Your task to perform on an android device: change the clock display to digital Image 0: 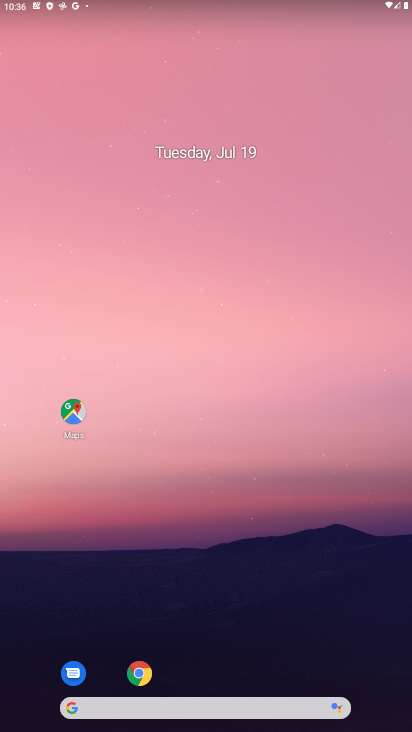
Step 0: drag from (237, 672) to (197, 88)
Your task to perform on an android device: change the clock display to digital Image 1: 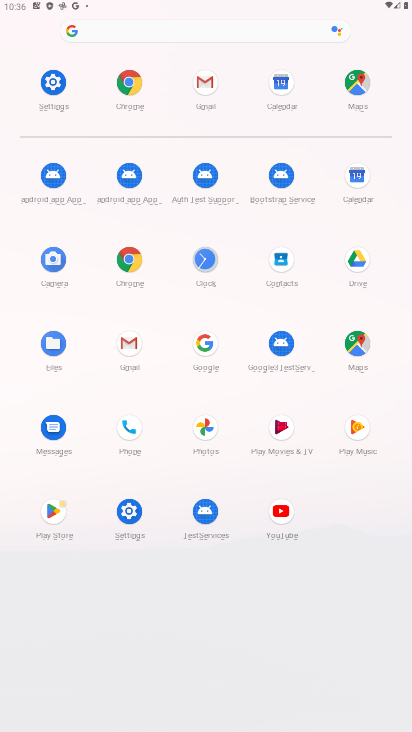
Step 1: click (196, 273)
Your task to perform on an android device: change the clock display to digital Image 2: 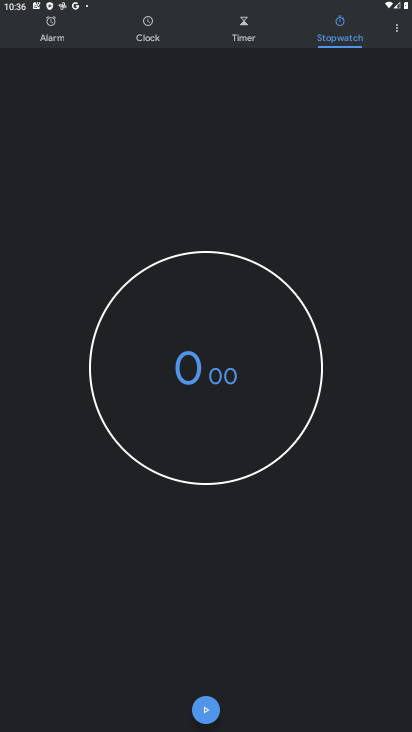
Step 2: click (151, 39)
Your task to perform on an android device: change the clock display to digital Image 3: 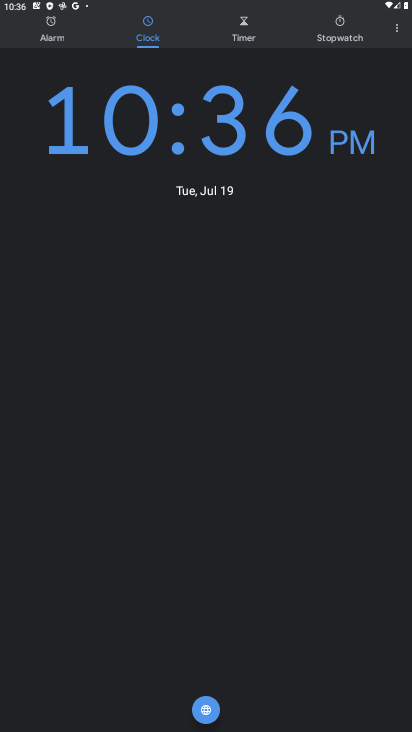
Step 3: click (394, 28)
Your task to perform on an android device: change the clock display to digital Image 4: 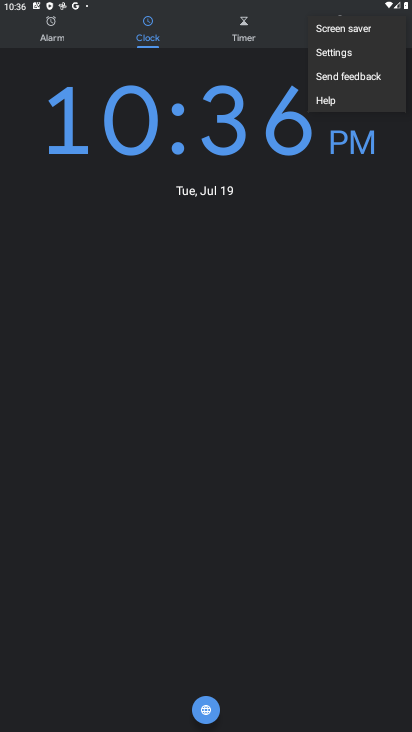
Step 4: click (332, 55)
Your task to perform on an android device: change the clock display to digital Image 5: 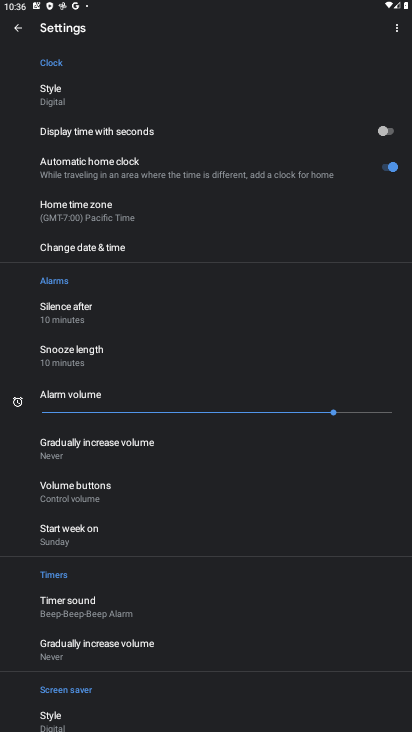
Step 5: task complete